Your task to perform on an android device: turn on airplane mode Image 0: 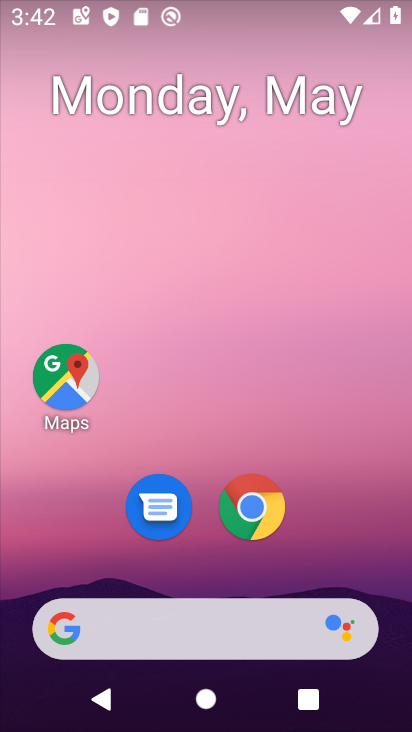
Step 0: drag from (228, 17) to (186, 519)
Your task to perform on an android device: turn on airplane mode Image 1: 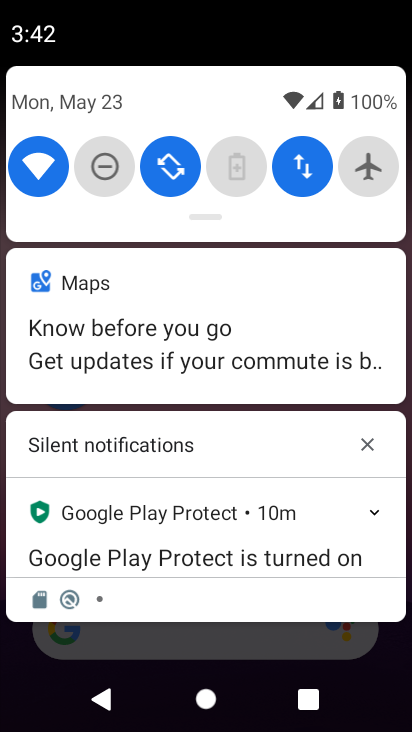
Step 1: click (375, 171)
Your task to perform on an android device: turn on airplane mode Image 2: 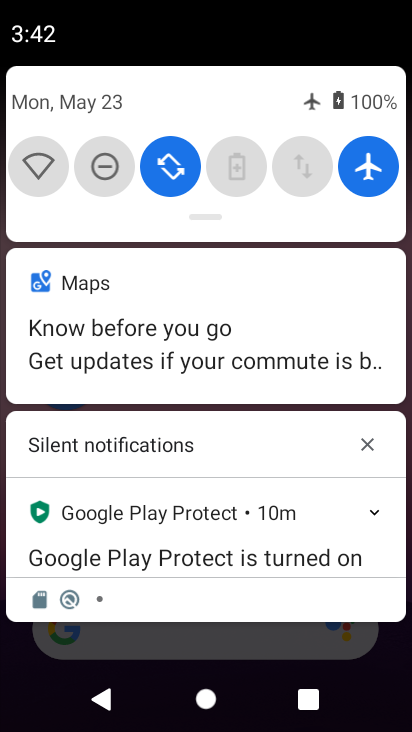
Step 2: task complete